Your task to perform on an android device: Open the map Image 0: 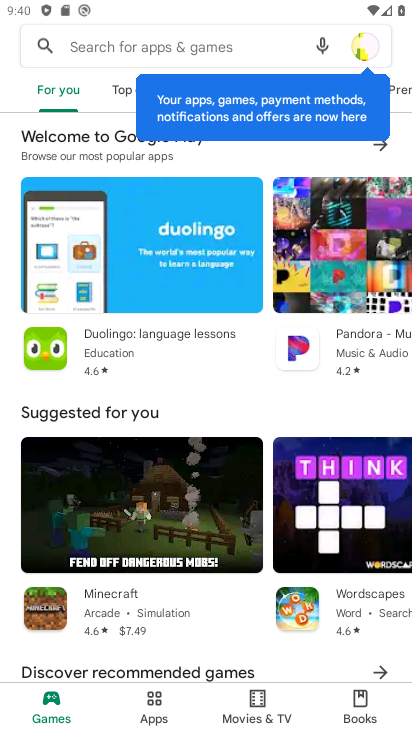
Step 0: press home button
Your task to perform on an android device: Open the map Image 1: 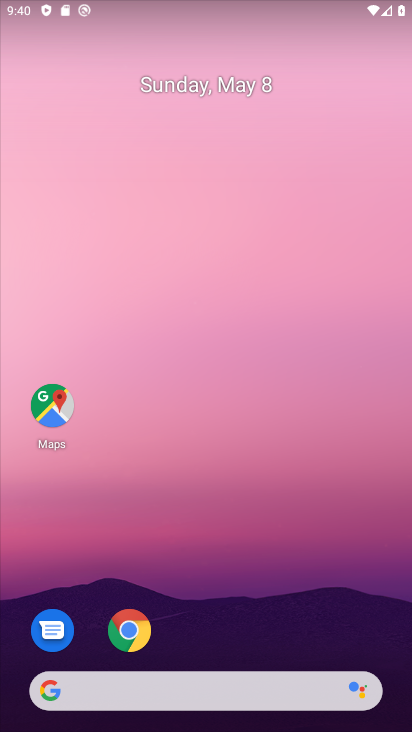
Step 1: drag from (223, 725) to (209, 273)
Your task to perform on an android device: Open the map Image 2: 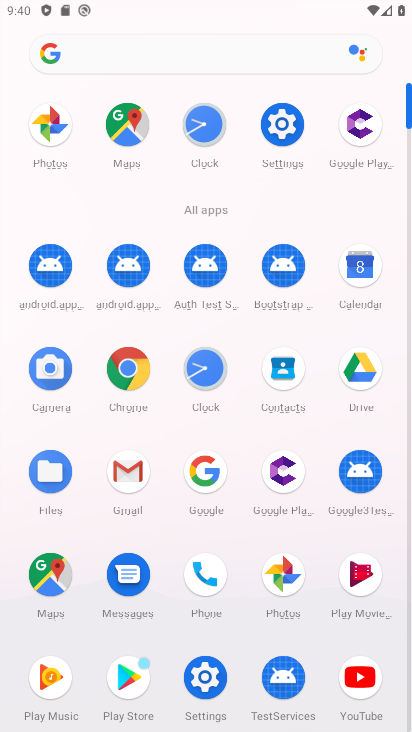
Step 2: click (54, 571)
Your task to perform on an android device: Open the map Image 3: 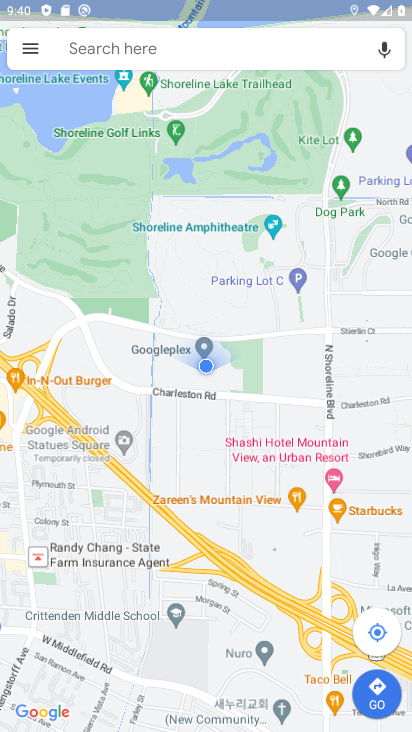
Step 3: task complete